Your task to perform on an android device: Go to eBay Image 0: 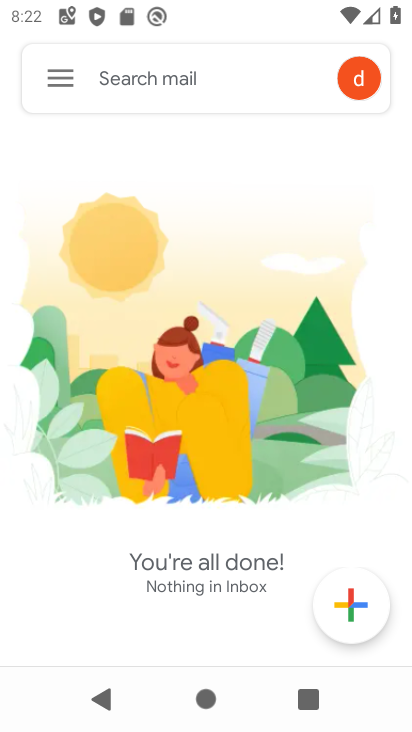
Step 0: press home button
Your task to perform on an android device: Go to eBay Image 1: 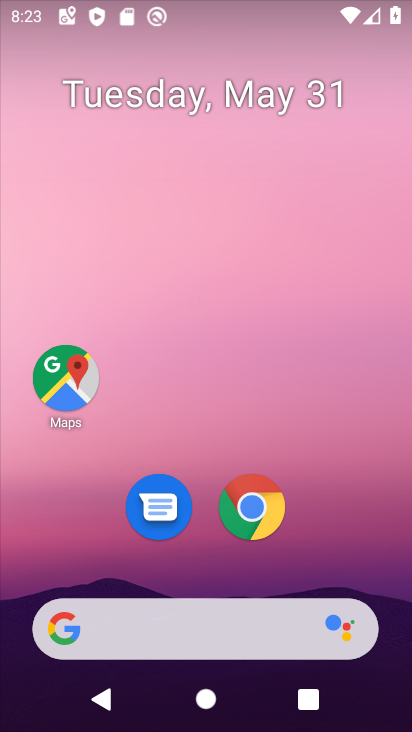
Step 1: click (252, 509)
Your task to perform on an android device: Go to eBay Image 2: 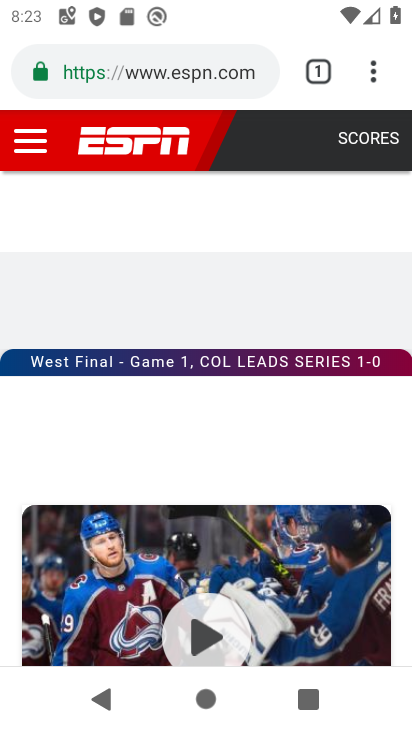
Step 2: click (160, 66)
Your task to perform on an android device: Go to eBay Image 3: 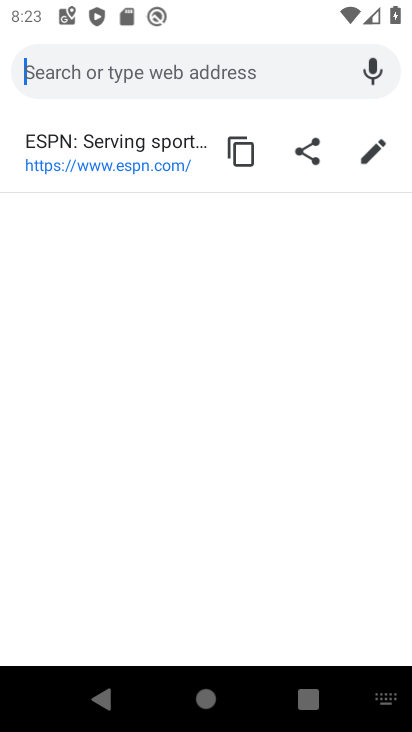
Step 3: type "ebay"
Your task to perform on an android device: Go to eBay Image 4: 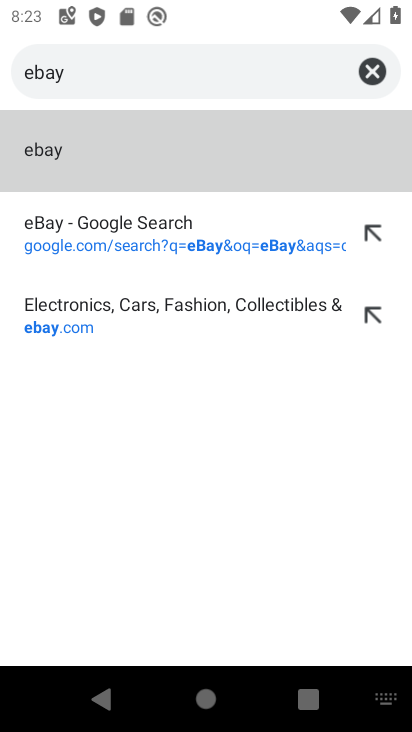
Step 4: click (64, 331)
Your task to perform on an android device: Go to eBay Image 5: 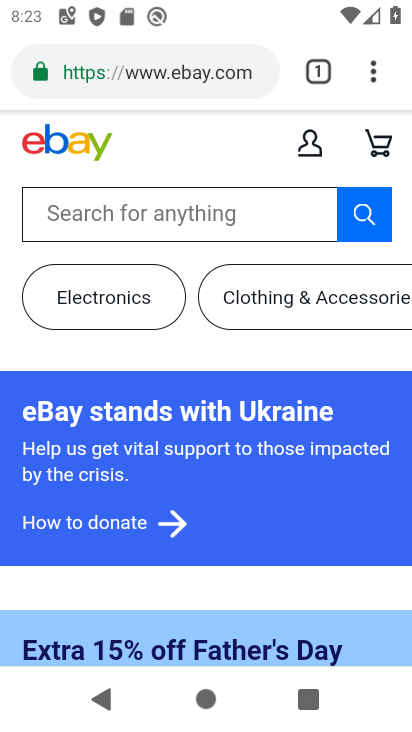
Step 5: task complete